Your task to perform on an android device: How much does the Vizio TV cost? Image 0: 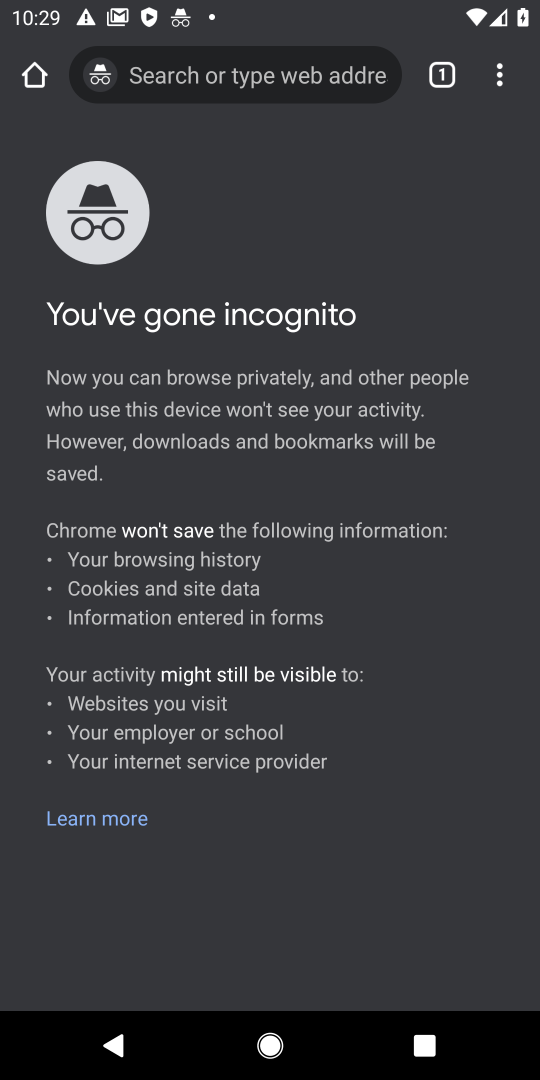
Step 0: press home button
Your task to perform on an android device: How much does the Vizio TV cost? Image 1: 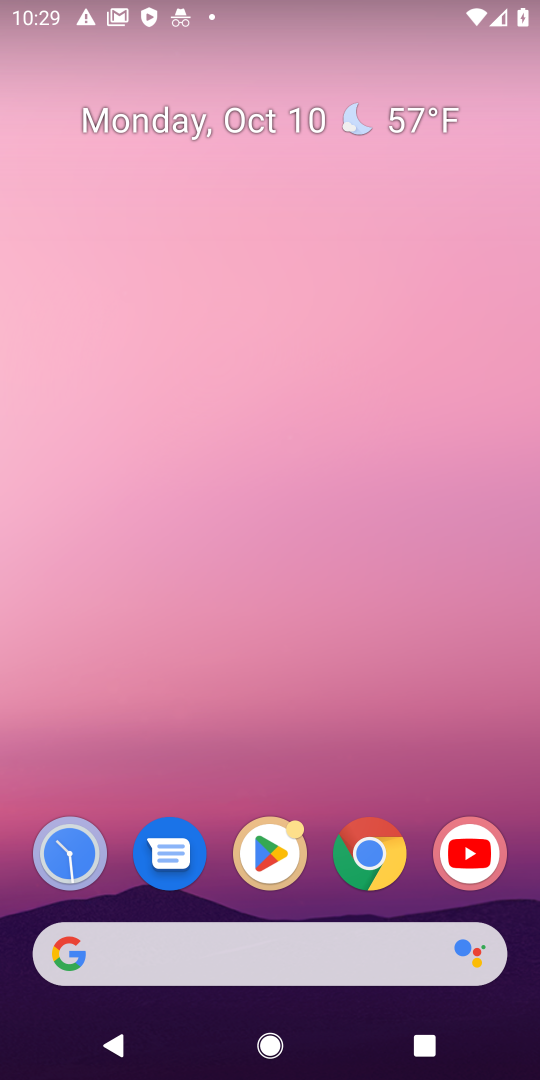
Step 1: click (271, 951)
Your task to perform on an android device: How much does the Vizio TV cost? Image 2: 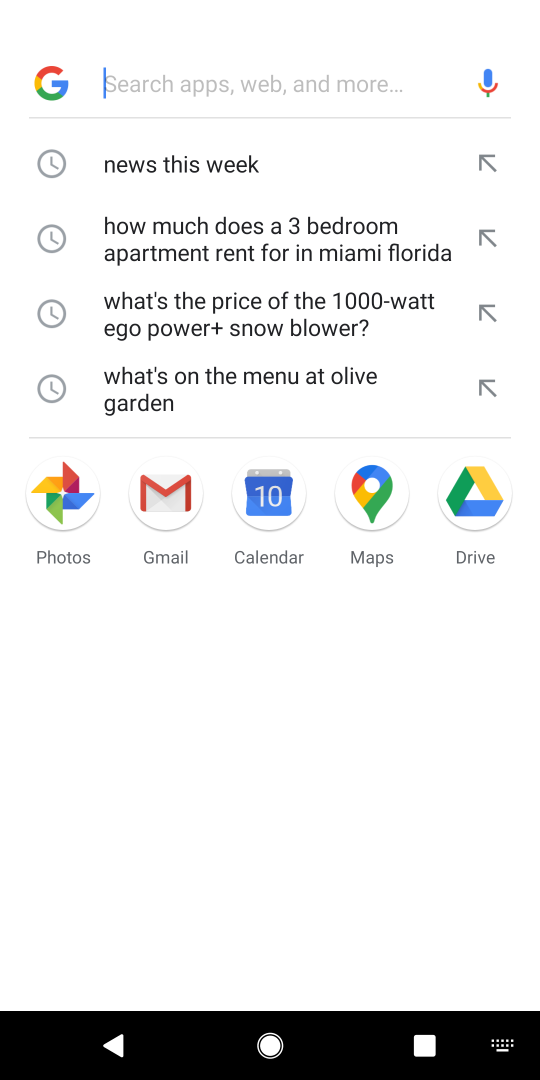
Step 2: press enter
Your task to perform on an android device: How much does the Vizio TV cost? Image 3: 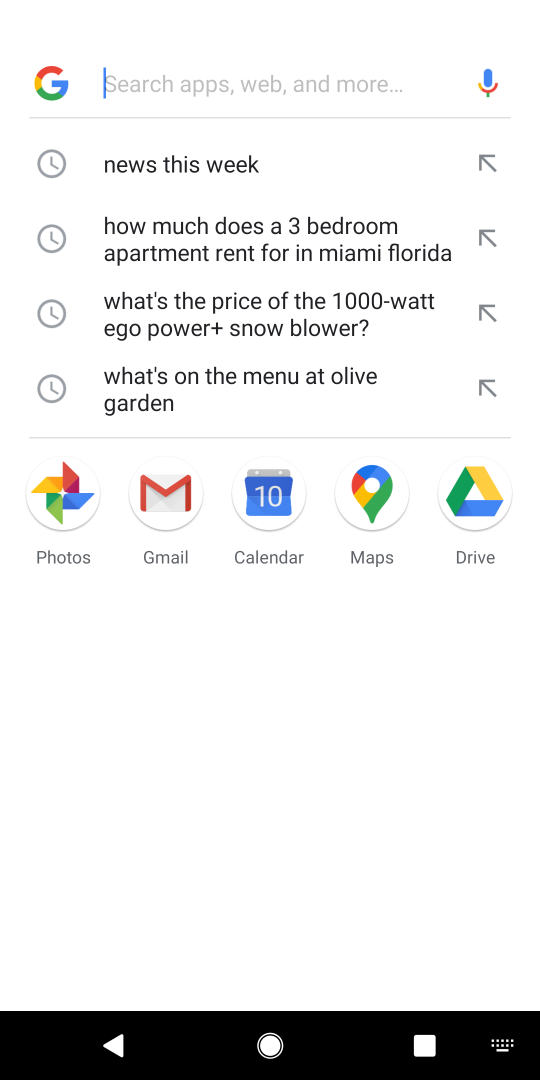
Step 3: type "How much does the Vizio TV cost"
Your task to perform on an android device: How much does the Vizio TV cost? Image 4: 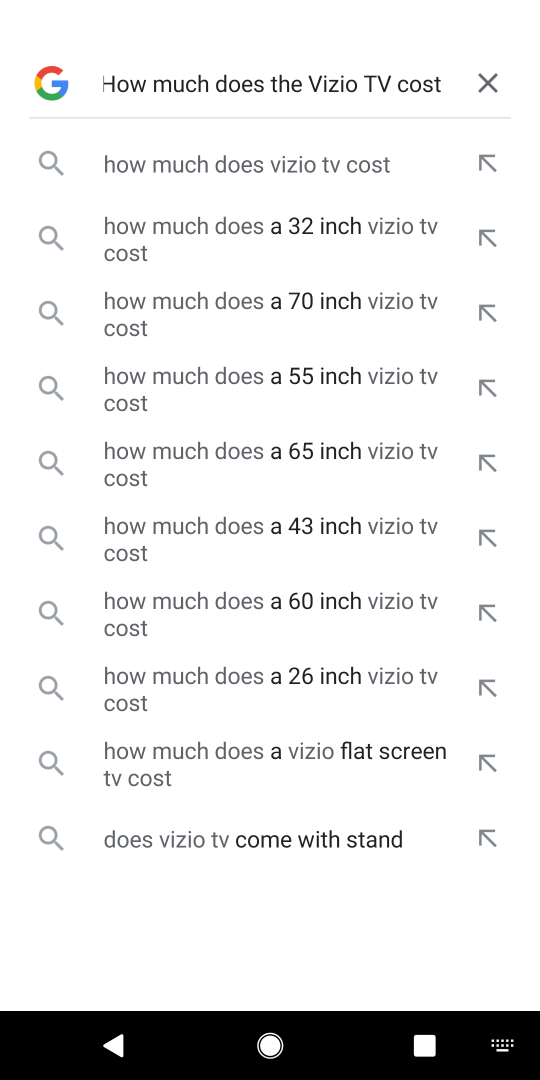
Step 4: press enter
Your task to perform on an android device: How much does the Vizio TV cost? Image 5: 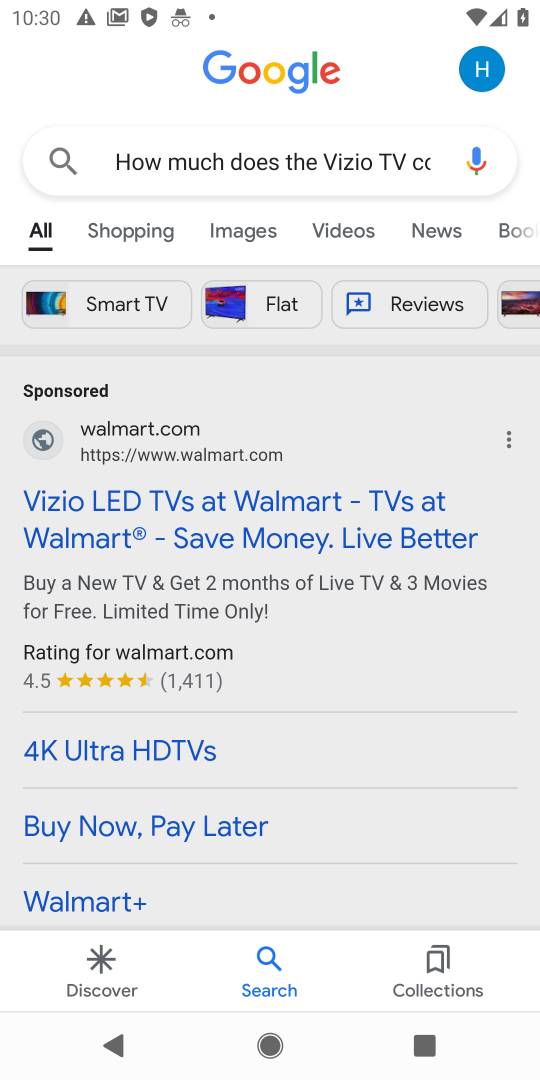
Step 5: drag from (361, 712) to (412, 369)
Your task to perform on an android device: How much does the Vizio TV cost? Image 6: 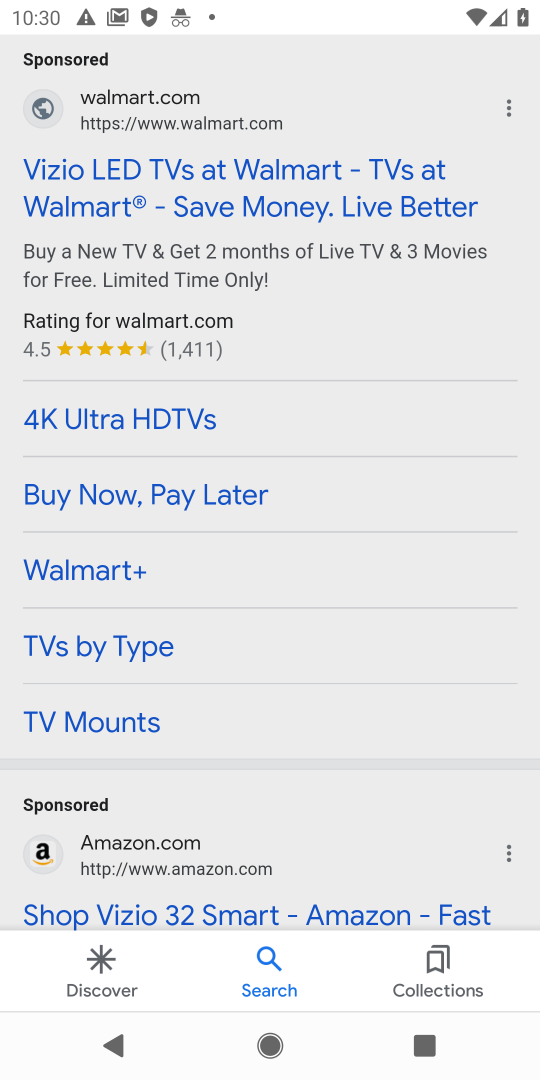
Step 6: drag from (360, 723) to (395, 267)
Your task to perform on an android device: How much does the Vizio TV cost? Image 7: 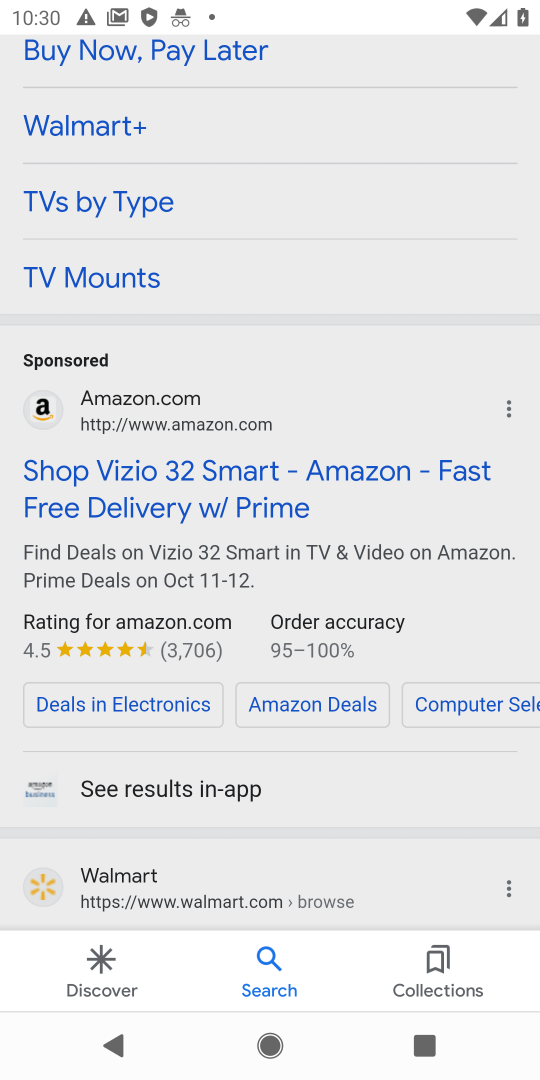
Step 7: click (236, 489)
Your task to perform on an android device: How much does the Vizio TV cost? Image 8: 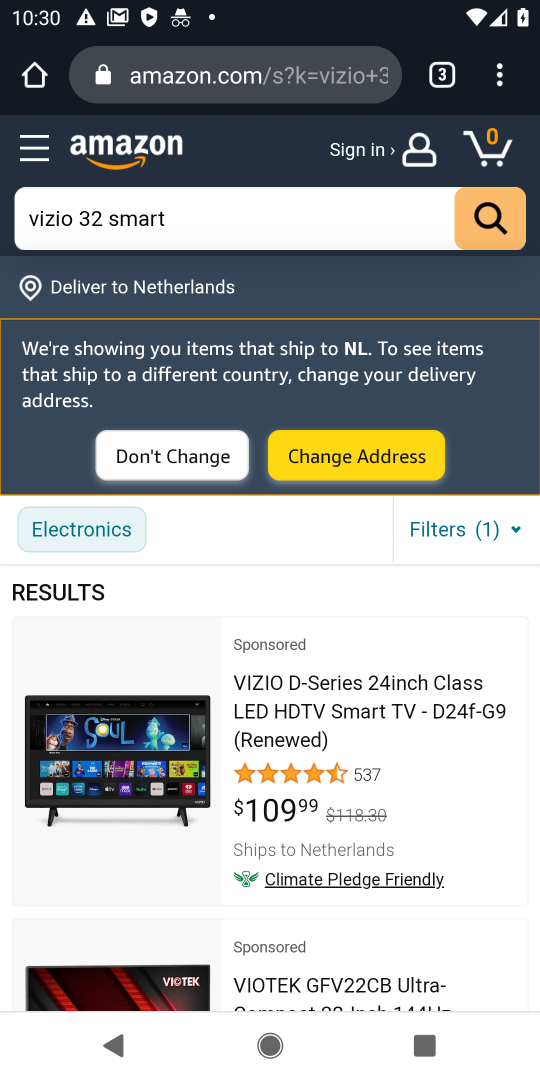
Step 8: task complete